Your task to perform on an android device: turn on the 12-hour format for clock Image 0: 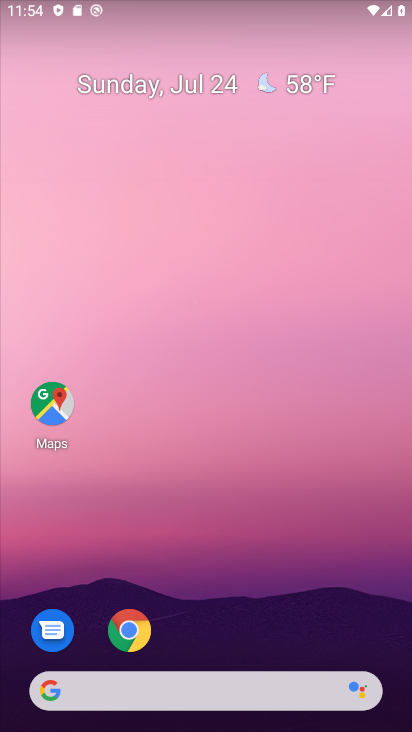
Step 0: click (255, 148)
Your task to perform on an android device: turn on the 12-hour format for clock Image 1: 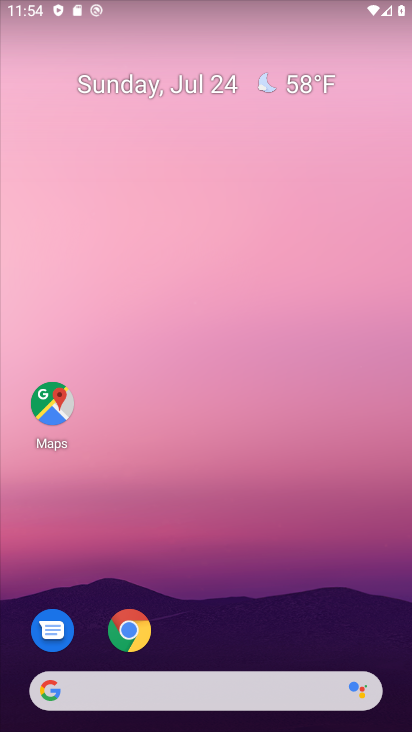
Step 1: drag from (236, 642) to (203, 69)
Your task to perform on an android device: turn on the 12-hour format for clock Image 2: 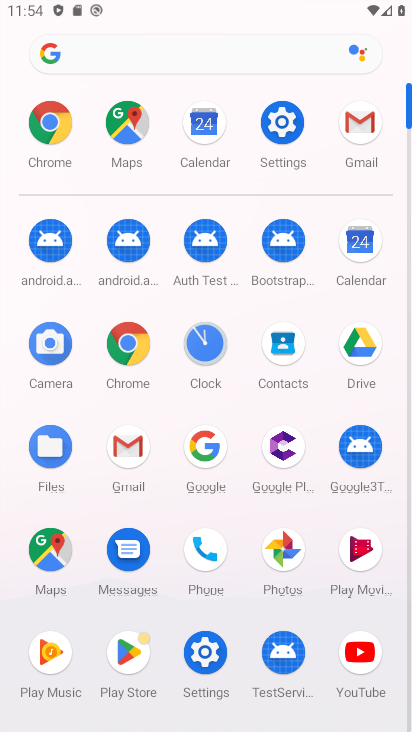
Step 2: click (216, 354)
Your task to perform on an android device: turn on the 12-hour format for clock Image 3: 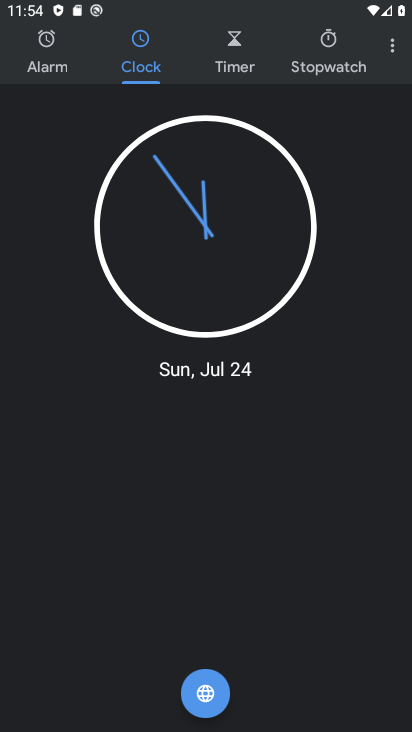
Step 3: click (389, 66)
Your task to perform on an android device: turn on the 12-hour format for clock Image 4: 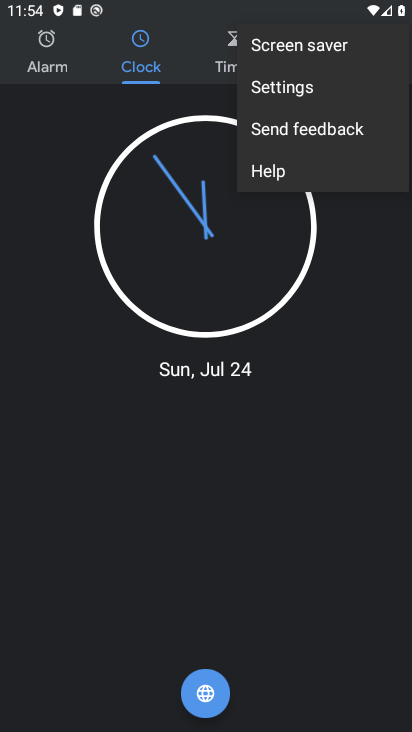
Step 4: click (339, 87)
Your task to perform on an android device: turn on the 12-hour format for clock Image 5: 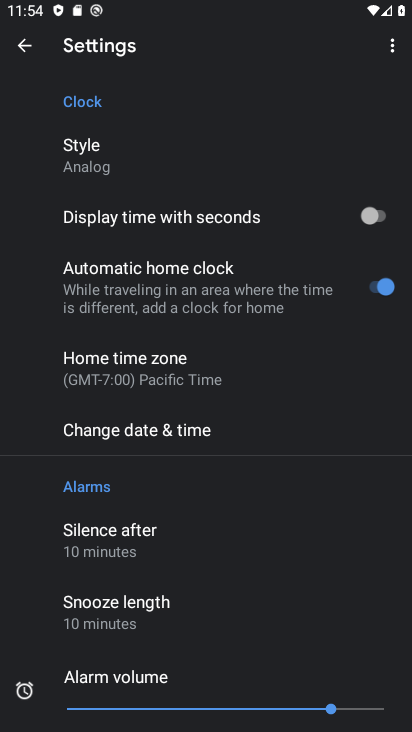
Step 5: click (308, 447)
Your task to perform on an android device: turn on the 12-hour format for clock Image 6: 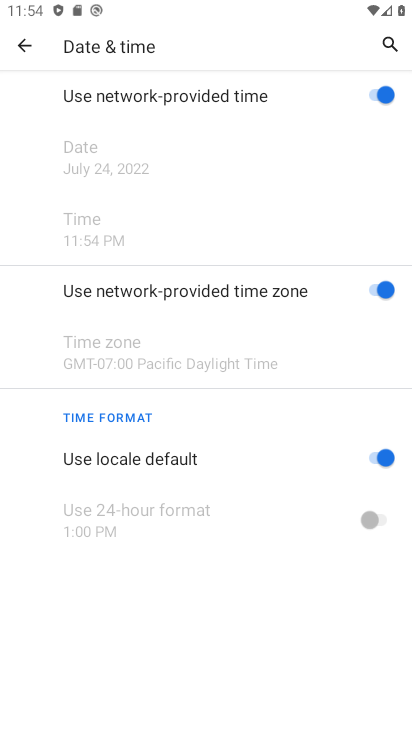
Step 6: task complete